Your task to perform on an android device: Do I have any events this weekend? Image 0: 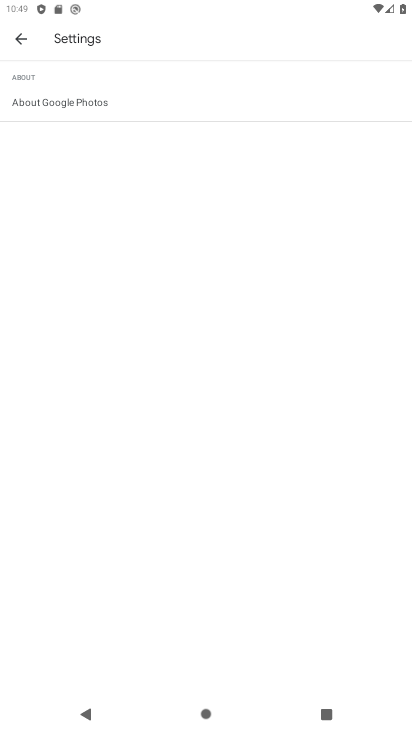
Step 0: press home button
Your task to perform on an android device: Do I have any events this weekend? Image 1: 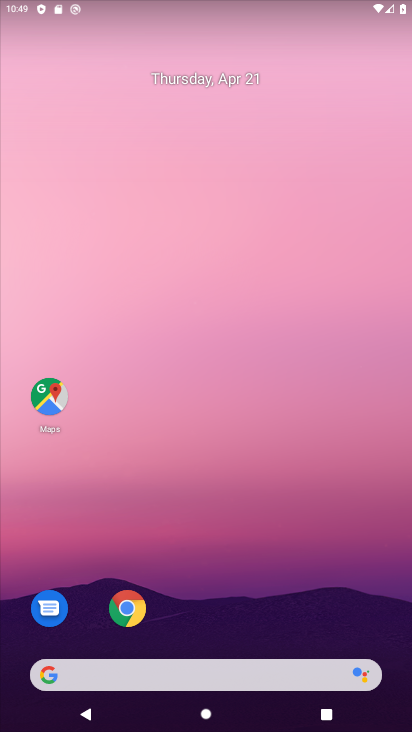
Step 1: drag from (196, 340) to (205, 184)
Your task to perform on an android device: Do I have any events this weekend? Image 2: 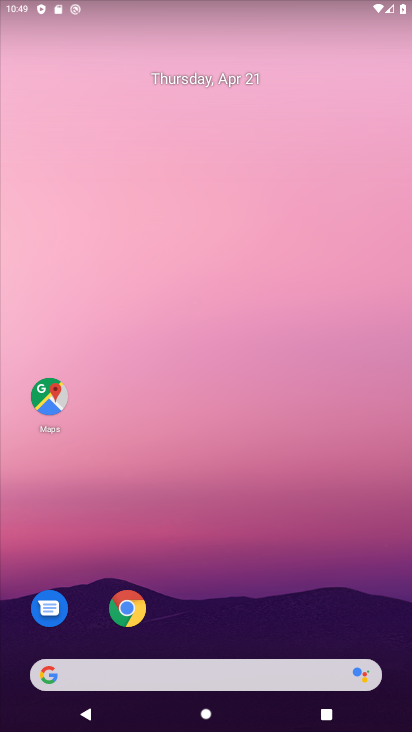
Step 2: drag from (250, 555) to (91, 53)
Your task to perform on an android device: Do I have any events this weekend? Image 3: 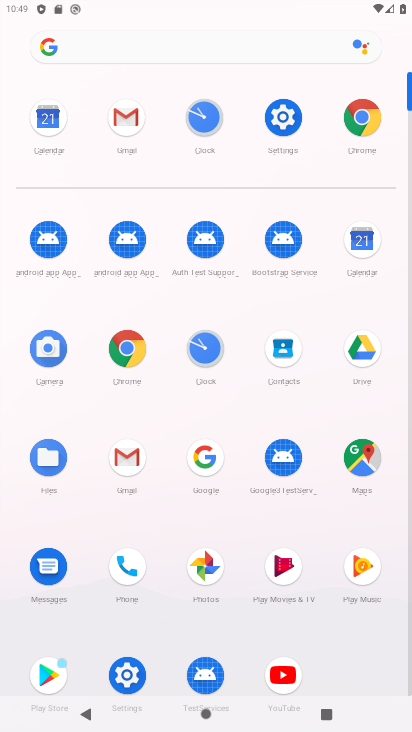
Step 3: click (40, 122)
Your task to perform on an android device: Do I have any events this weekend? Image 4: 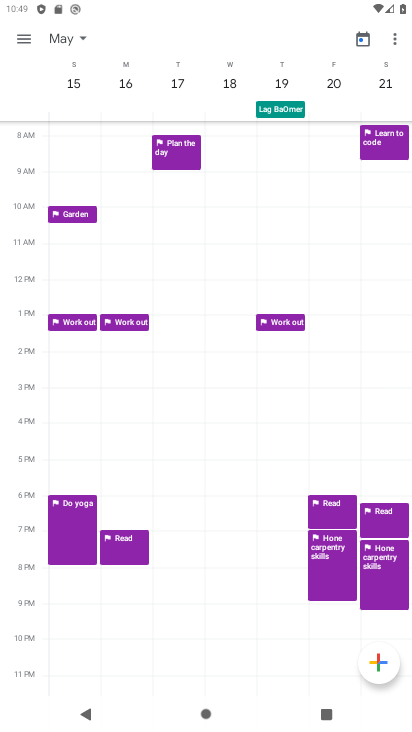
Step 4: click (24, 37)
Your task to perform on an android device: Do I have any events this weekend? Image 5: 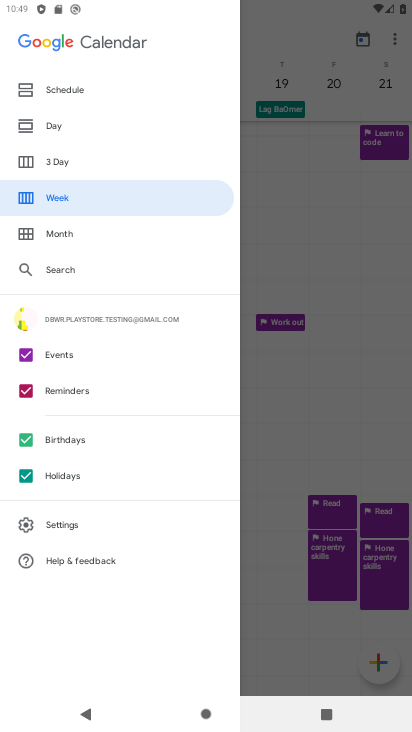
Step 5: click (24, 392)
Your task to perform on an android device: Do I have any events this weekend? Image 6: 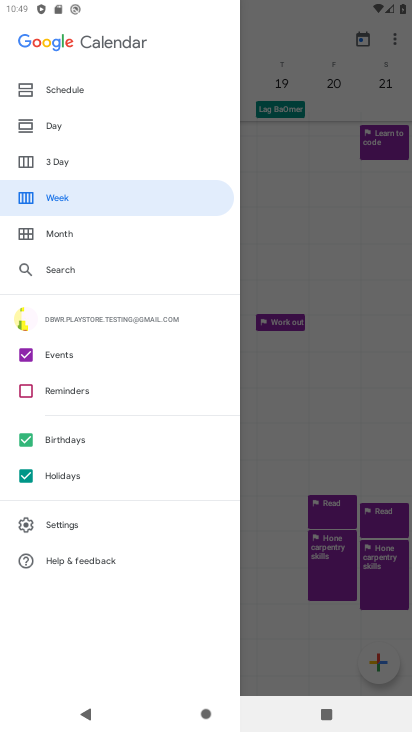
Step 6: click (23, 441)
Your task to perform on an android device: Do I have any events this weekend? Image 7: 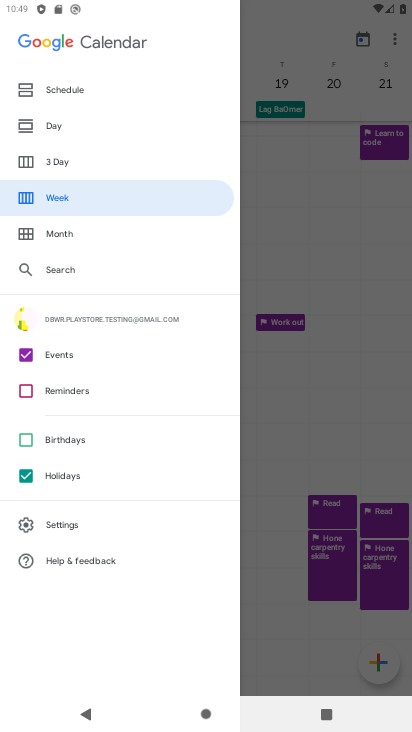
Step 7: click (22, 482)
Your task to perform on an android device: Do I have any events this weekend? Image 8: 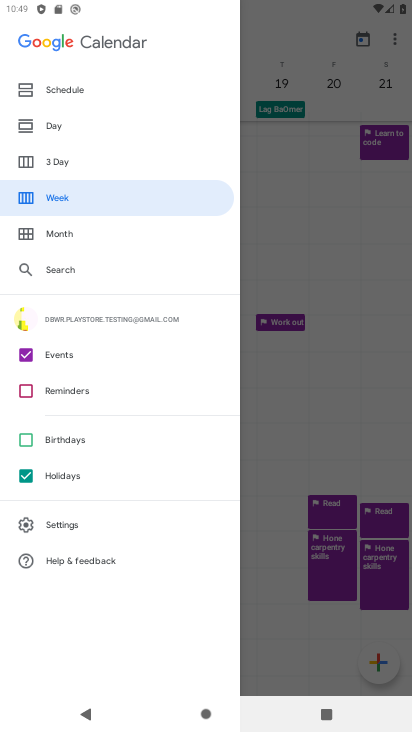
Step 8: click (25, 475)
Your task to perform on an android device: Do I have any events this weekend? Image 9: 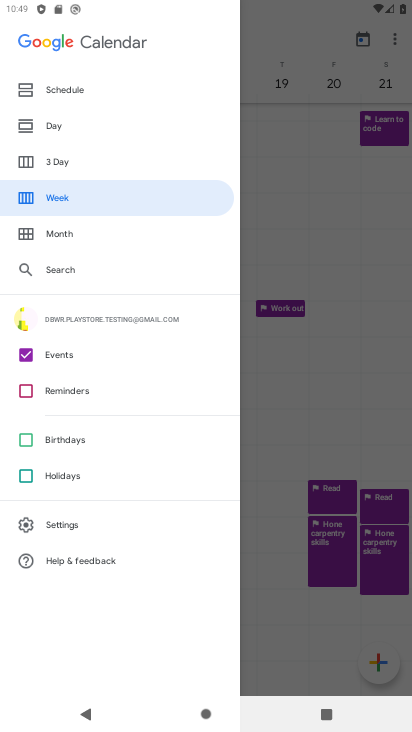
Step 9: press back button
Your task to perform on an android device: Do I have any events this weekend? Image 10: 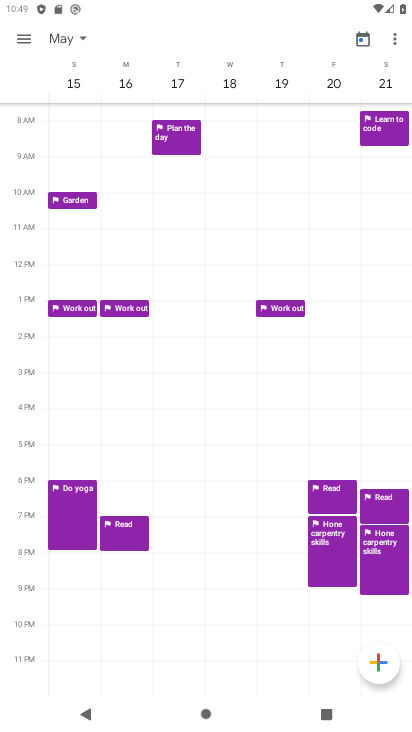
Step 10: drag from (368, 219) to (346, 537)
Your task to perform on an android device: Do I have any events this weekend? Image 11: 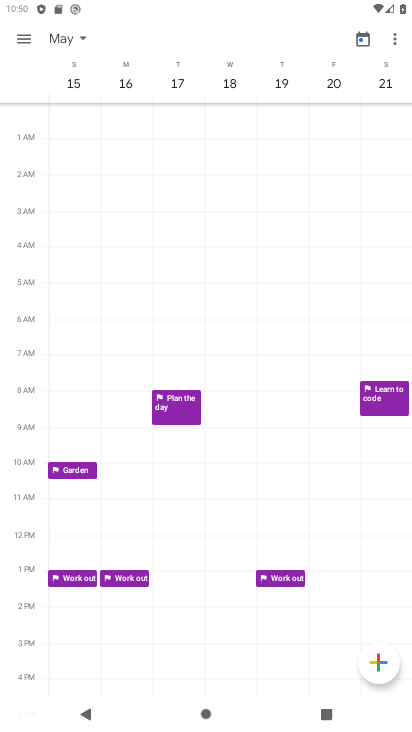
Step 11: drag from (359, 278) to (344, 152)
Your task to perform on an android device: Do I have any events this weekend? Image 12: 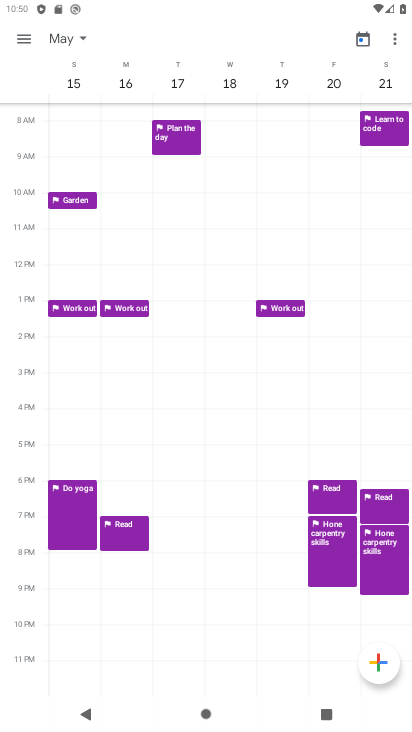
Step 12: drag from (373, 581) to (375, 82)
Your task to perform on an android device: Do I have any events this weekend? Image 13: 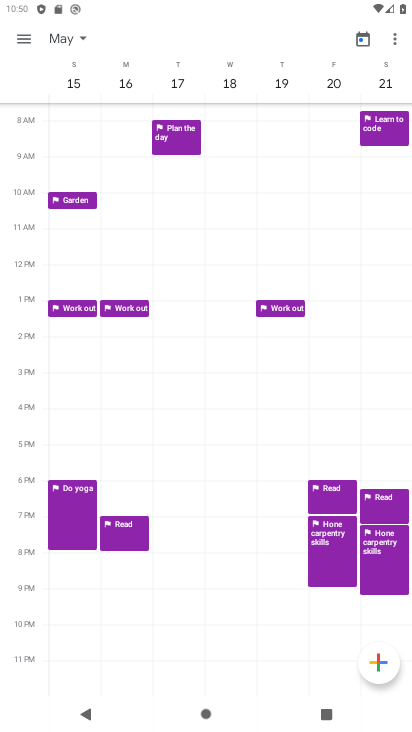
Step 13: click (387, 84)
Your task to perform on an android device: Do I have any events this weekend? Image 14: 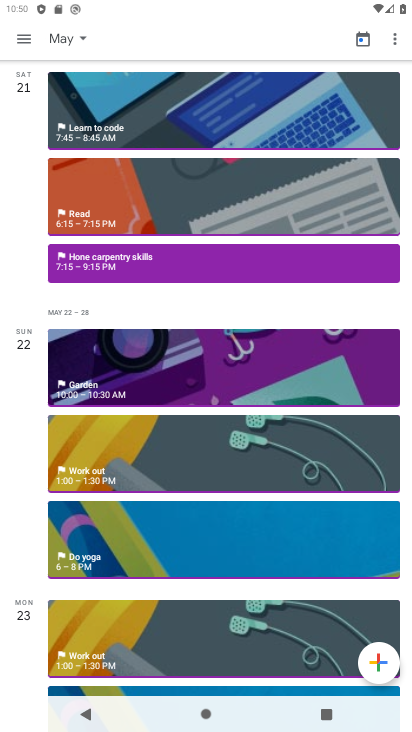
Step 14: task complete